Your task to perform on an android device: turn off notifications settings in the gmail app Image 0: 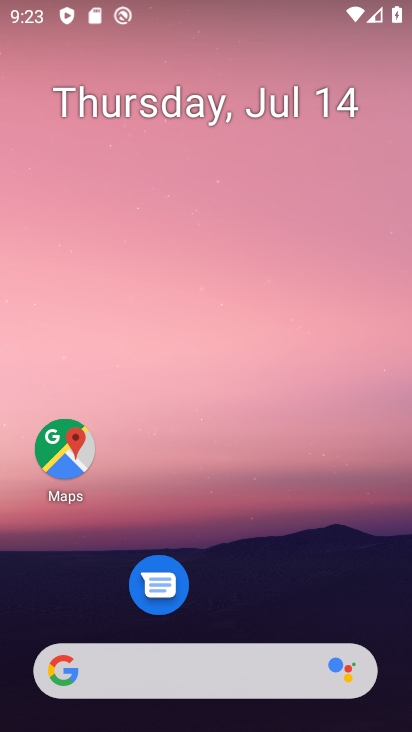
Step 0: drag from (224, 606) to (318, 7)
Your task to perform on an android device: turn off notifications settings in the gmail app Image 1: 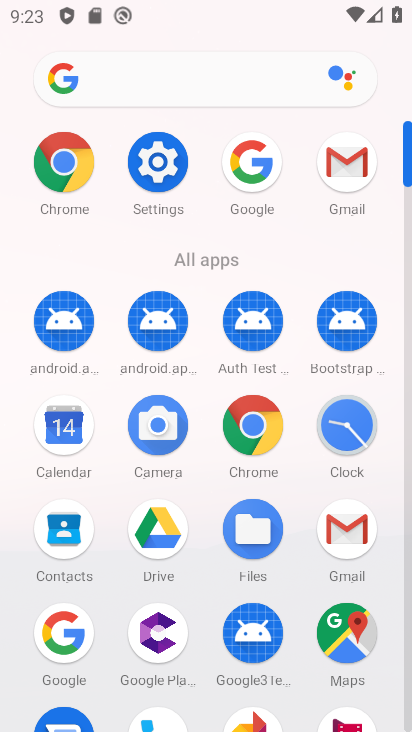
Step 1: click (339, 209)
Your task to perform on an android device: turn off notifications settings in the gmail app Image 2: 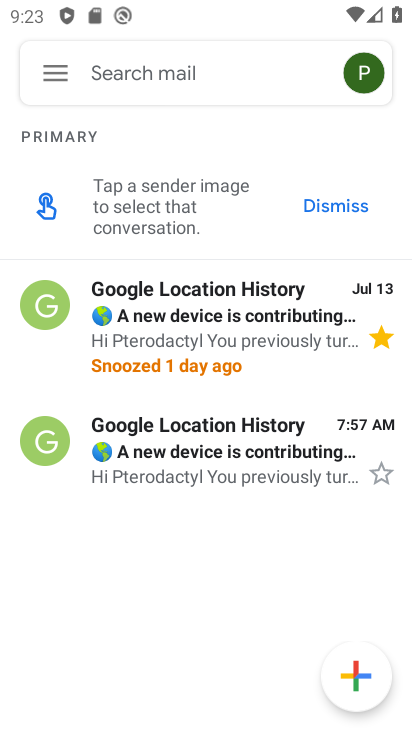
Step 2: click (55, 77)
Your task to perform on an android device: turn off notifications settings in the gmail app Image 3: 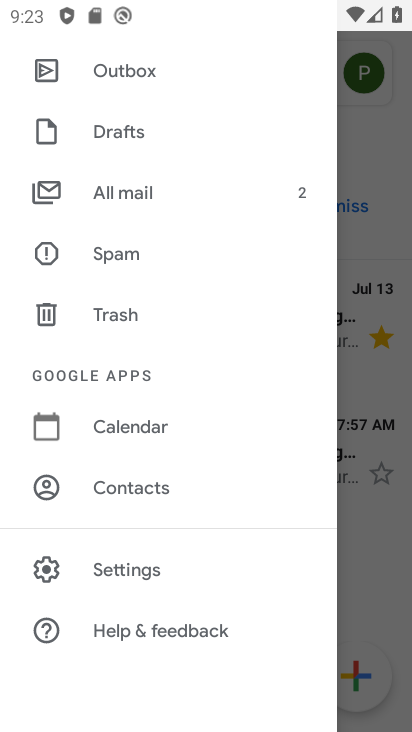
Step 3: click (114, 571)
Your task to perform on an android device: turn off notifications settings in the gmail app Image 4: 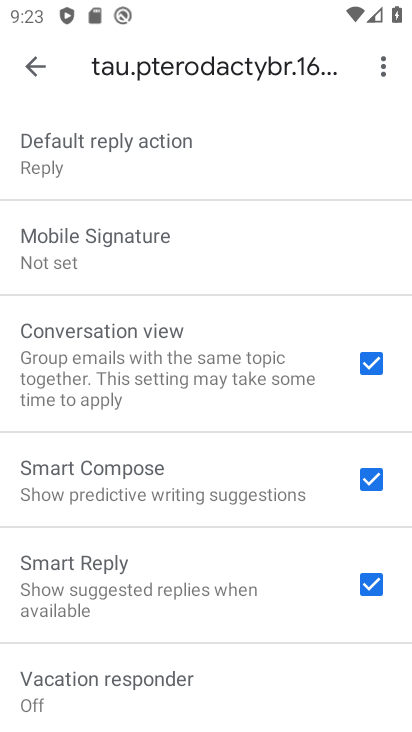
Step 4: drag from (114, 571) to (68, 199)
Your task to perform on an android device: turn off notifications settings in the gmail app Image 5: 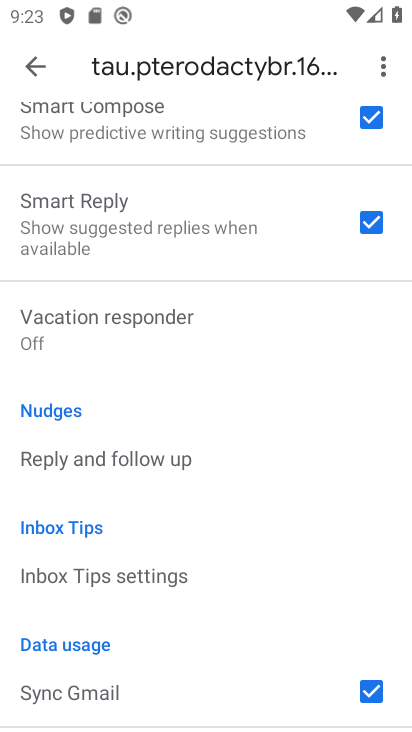
Step 5: click (28, 63)
Your task to perform on an android device: turn off notifications settings in the gmail app Image 6: 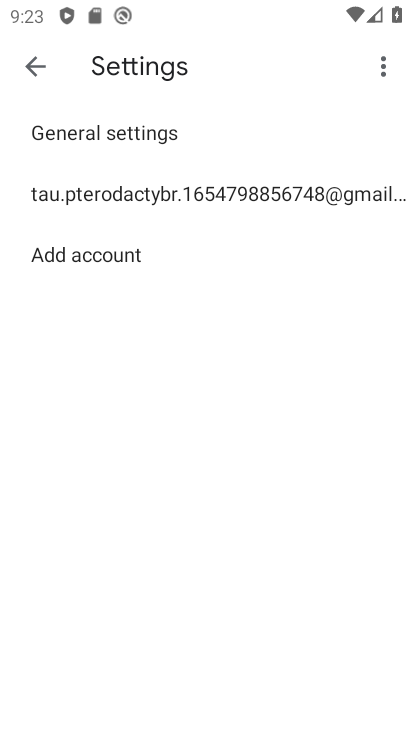
Step 6: click (58, 122)
Your task to perform on an android device: turn off notifications settings in the gmail app Image 7: 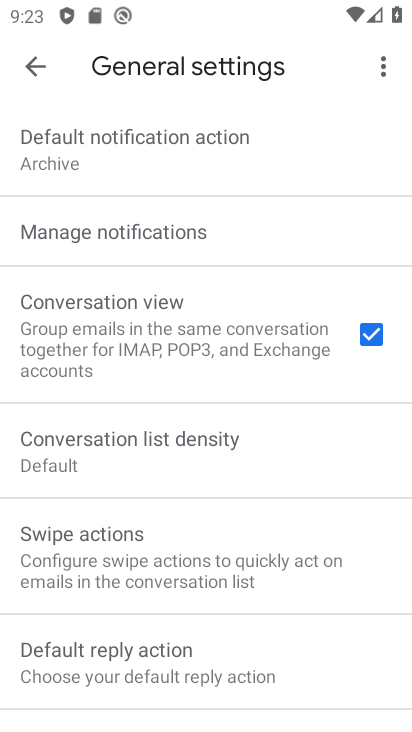
Step 7: click (98, 231)
Your task to perform on an android device: turn off notifications settings in the gmail app Image 8: 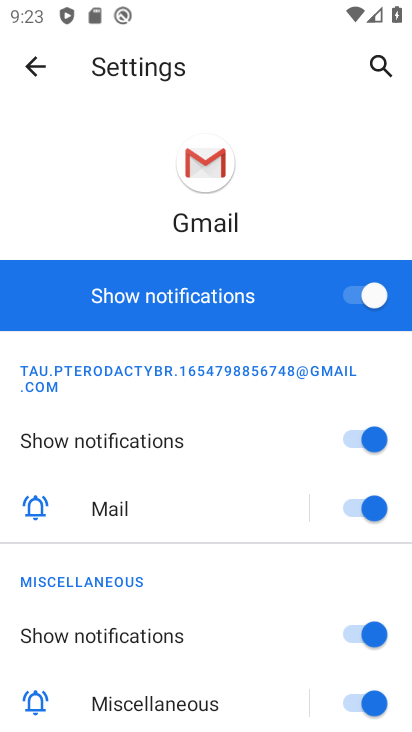
Step 8: click (350, 294)
Your task to perform on an android device: turn off notifications settings in the gmail app Image 9: 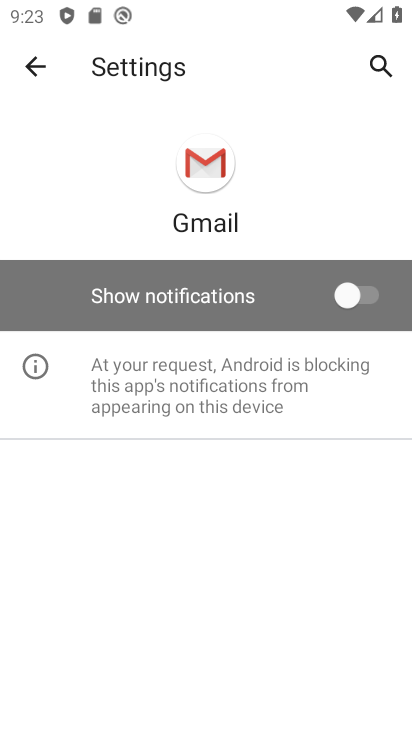
Step 9: task complete